Your task to perform on an android device: What's on my calendar today? Image 0: 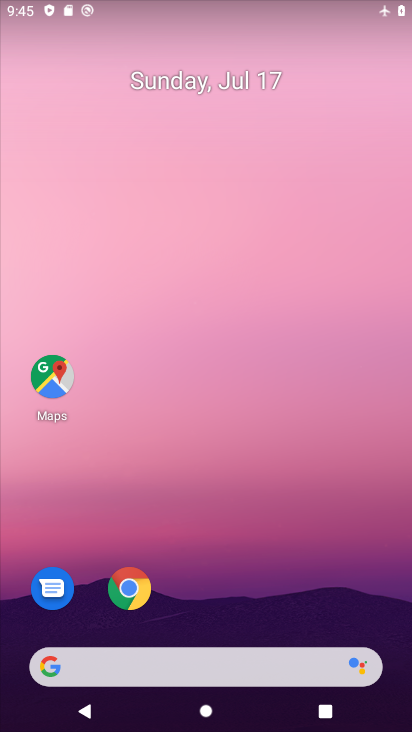
Step 0: drag from (323, 625) to (278, 116)
Your task to perform on an android device: What's on my calendar today? Image 1: 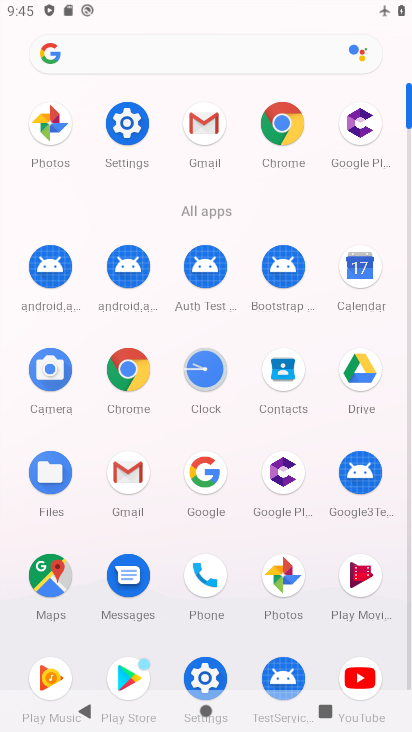
Step 1: click (363, 272)
Your task to perform on an android device: What's on my calendar today? Image 2: 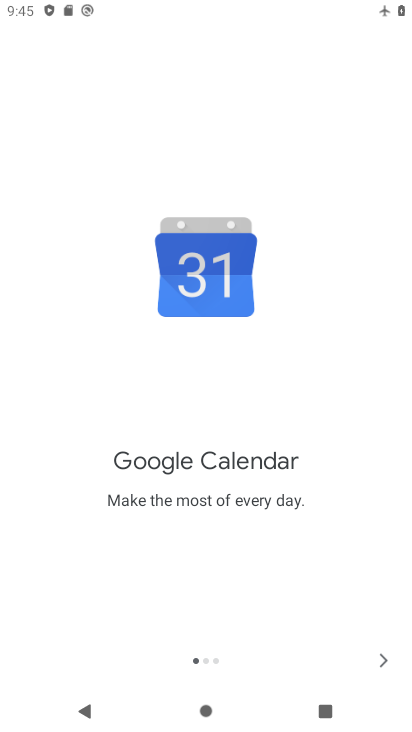
Step 2: click (386, 666)
Your task to perform on an android device: What's on my calendar today? Image 3: 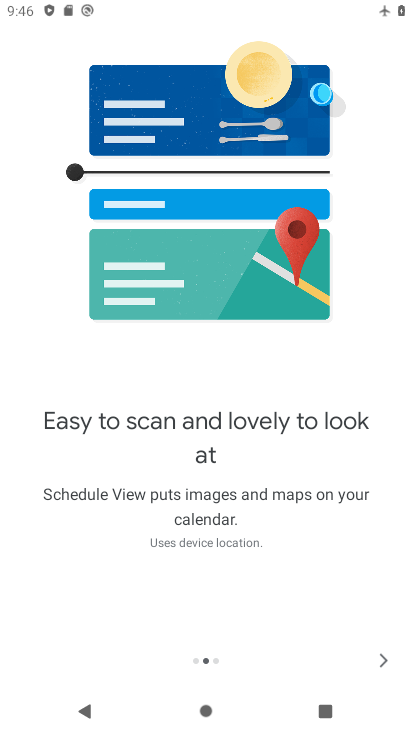
Step 3: click (386, 666)
Your task to perform on an android device: What's on my calendar today? Image 4: 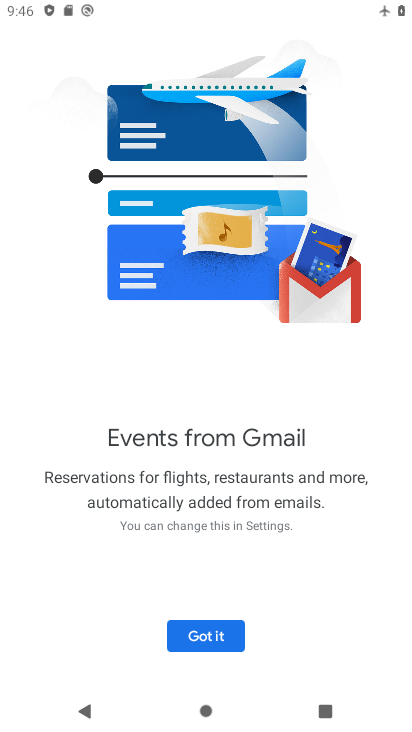
Step 4: click (201, 627)
Your task to perform on an android device: What's on my calendar today? Image 5: 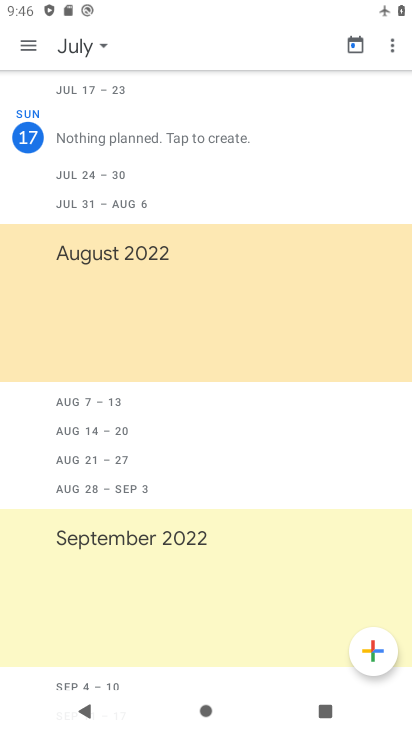
Step 5: click (28, 49)
Your task to perform on an android device: What's on my calendar today? Image 6: 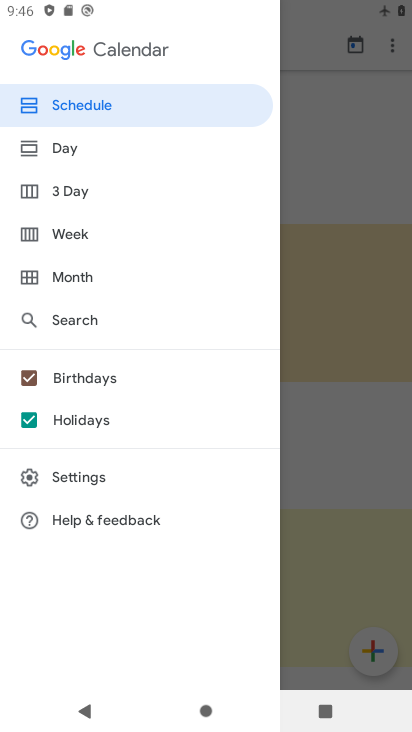
Step 6: click (72, 115)
Your task to perform on an android device: What's on my calendar today? Image 7: 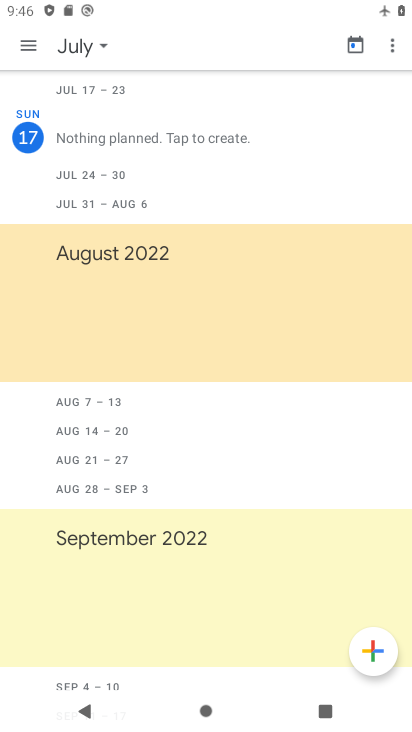
Step 7: task complete